Your task to perform on an android device: Go to sound settings Image 0: 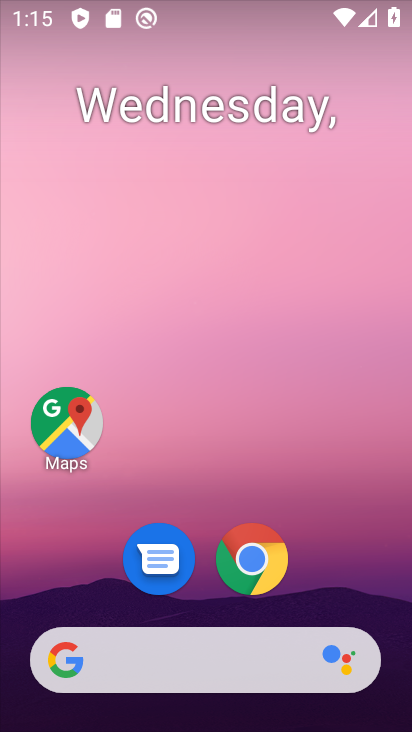
Step 0: drag from (194, 469) to (206, 87)
Your task to perform on an android device: Go to sound settings Image 1: 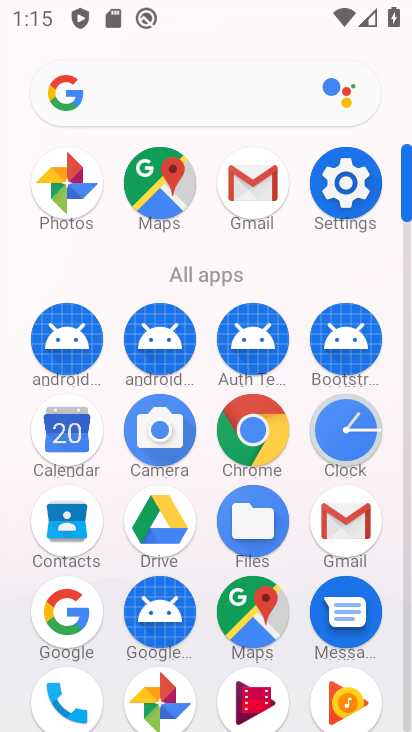
Step 1: click (351, 207)
Your task to perform on an android device: Go to sound settings Image 2: 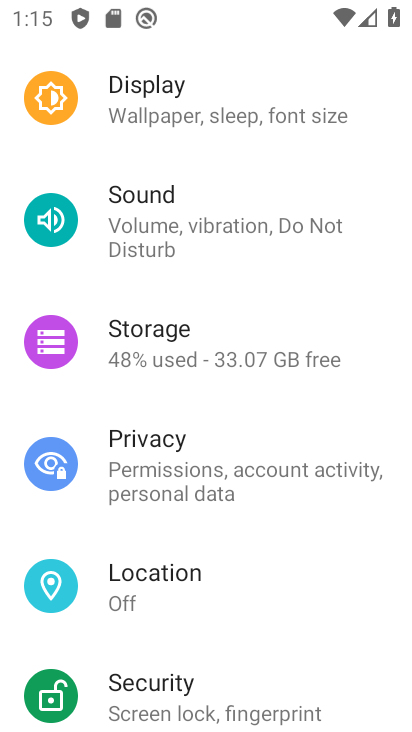
Step 2: click (220, 199)
Your task to perform on an android device: Go to sound settings Image 3: 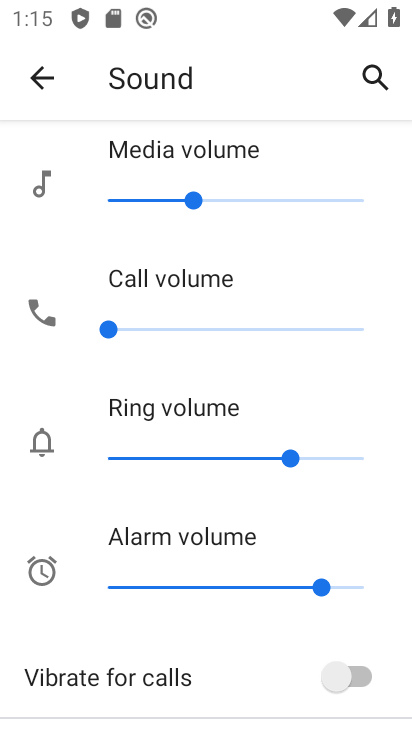
Step 3: task complete